Your task to perform on an android device: manage bookmarks in the chrome app Image 0: 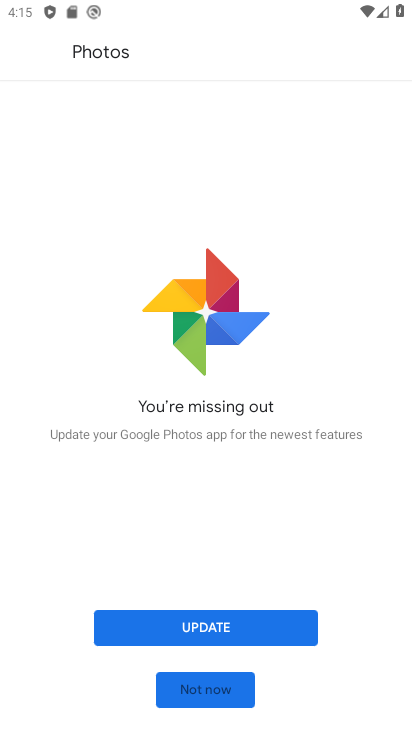
Step 0: press home button
Your task to perform on an android device: manage bookmarks in the chrome app Image 1: 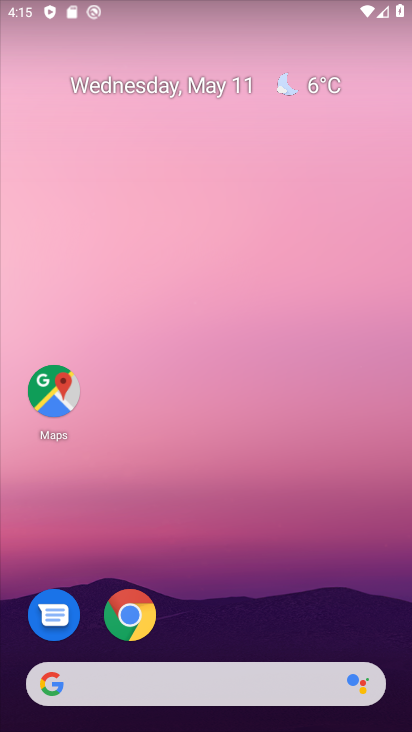
Step 1: click (124, 607)
Your task to perform on an android device: manage bookmarks in the chrome app Image 2: 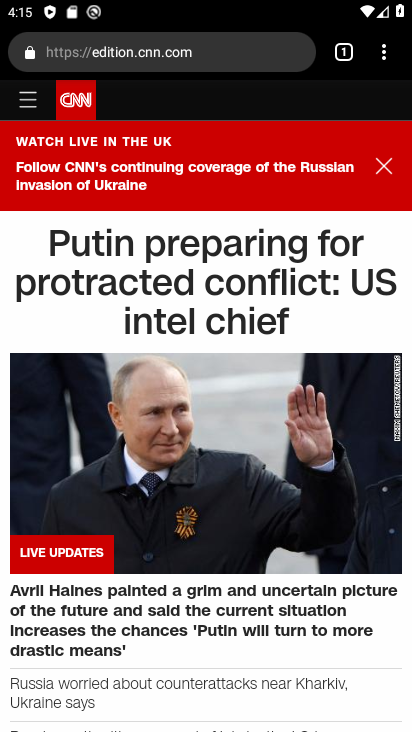
Step 2: click (378, 60)
Your task to perform on an android device: manage bookmarks in the chrome app Image 3: 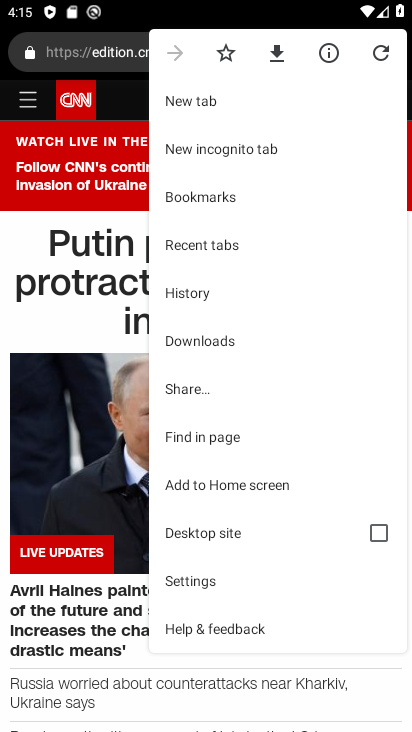
Step 3: click (205, 197)
Your task to perform on an android device: manage bookmarks in the chrome app Image 4: 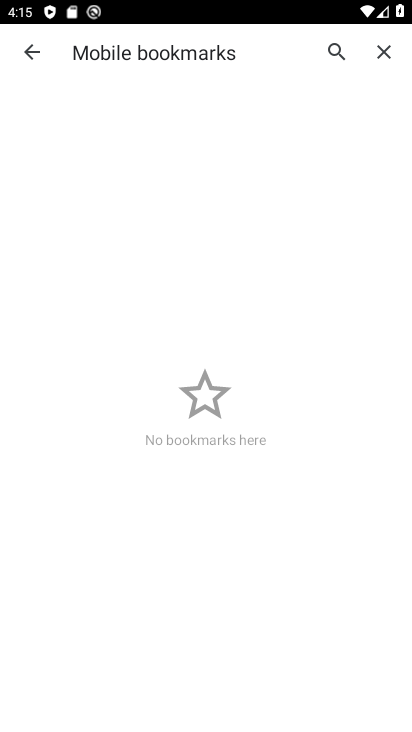
Step 4: task complete